Your task to perform on an android device: open the mobile data screen to see how much data has been used Image 0: 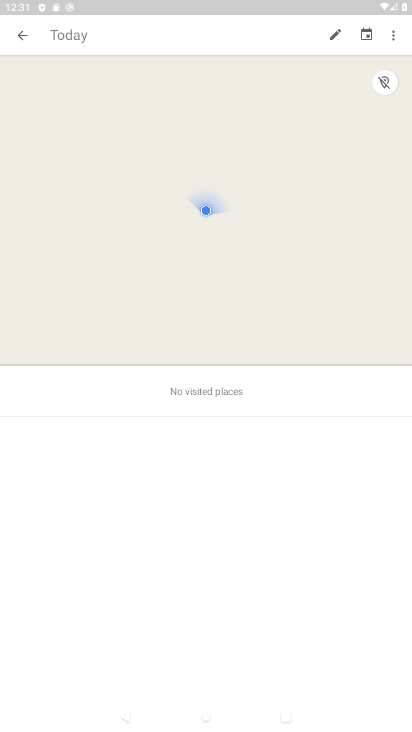
Step 0: press home button
Your task to perform on an android device: open the mobile data screen to see how much data has been used Image 1: 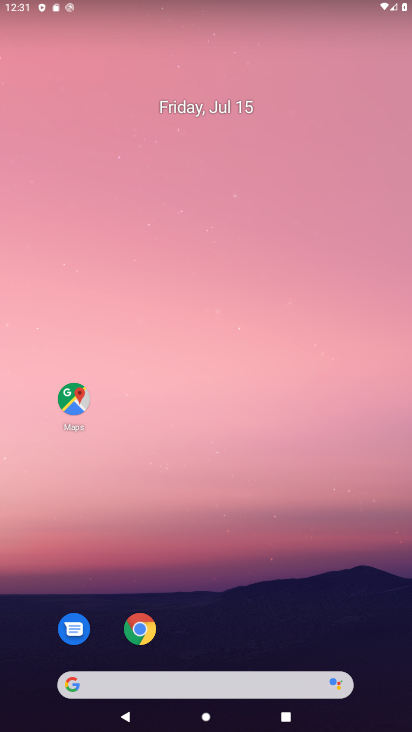
Step 1: drag from (279, 549) to (251, 1)
Your task to perform on an android device: open the mobile data screen to see how much data has been used Image 2: 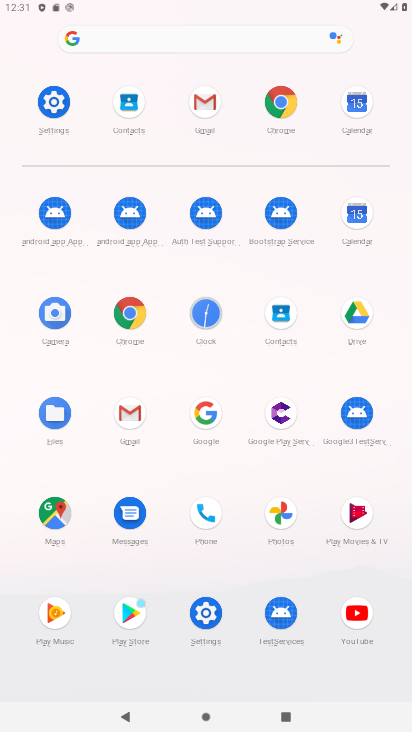
Step 2: click (45, 102)
Your task to perform on an android device: open the mobile data screen to see how much data has been used Image 3: 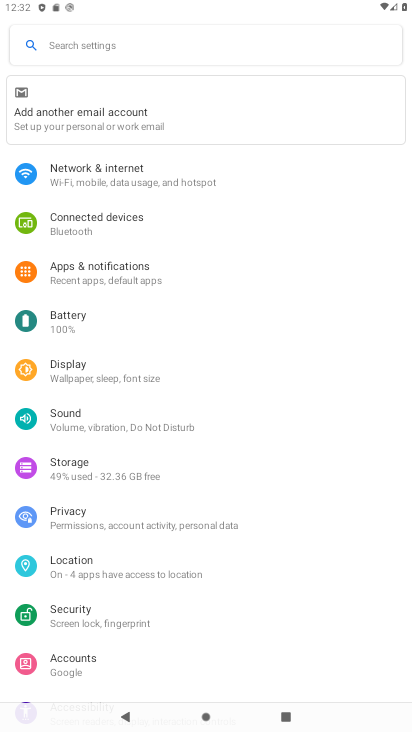
Step 3: click (84, 171)
Your task to perform on an android device: open the mobile data screen to see how much data has been used Image 4: 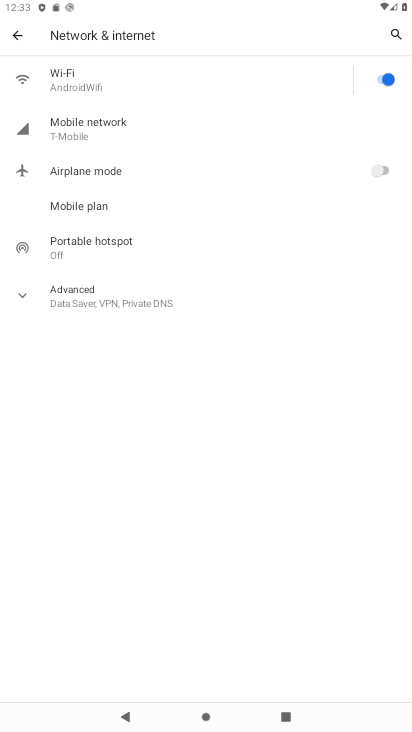
Step 4: click (98, 143)
Your task to perform on an android device: open the mobile data screen to see how much data has been used Image 5: 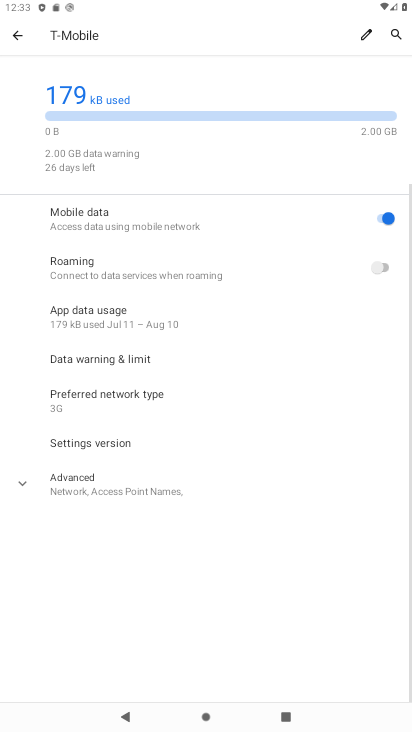
Step 5: task complete